Your task to perform on an android device: turn on location history Image 0: 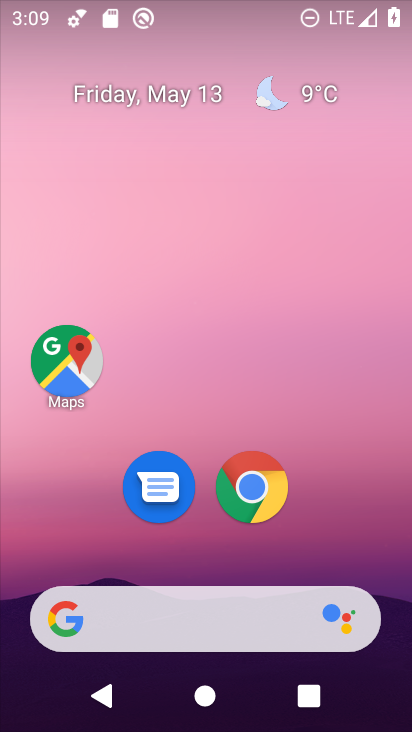
Step 0: drag from (199, 599) to (205, 104)
Your task to perform on an android device: turn on location history Image 1: 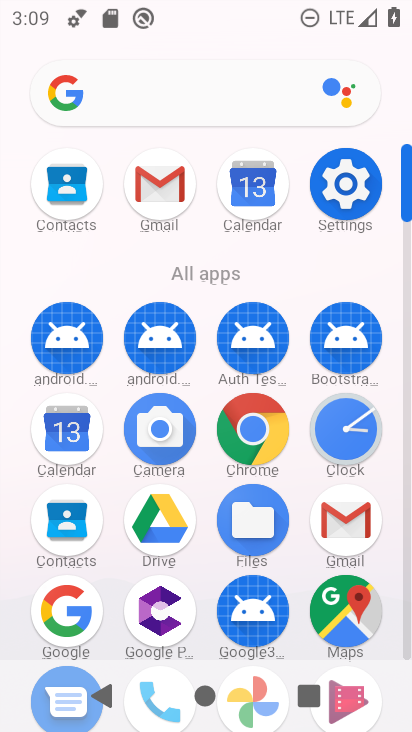
Step 1: click (361, 197)
Your task to perform on an android device: turn on location history Image 2: 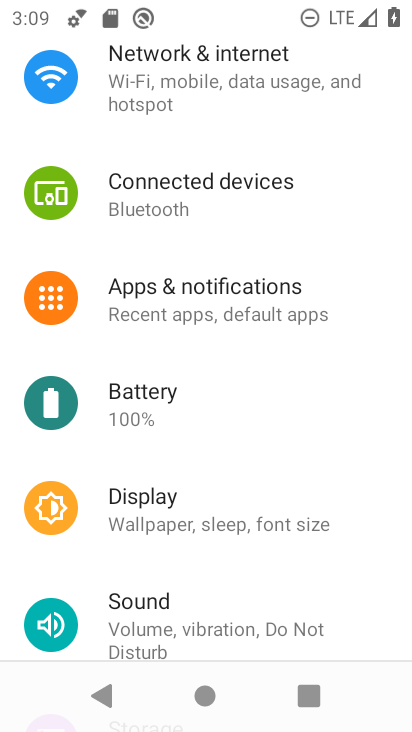
Step 2: drag from (209, 554) to (169, 94)
Your task to perform on an android device: turn on location history Image 3: 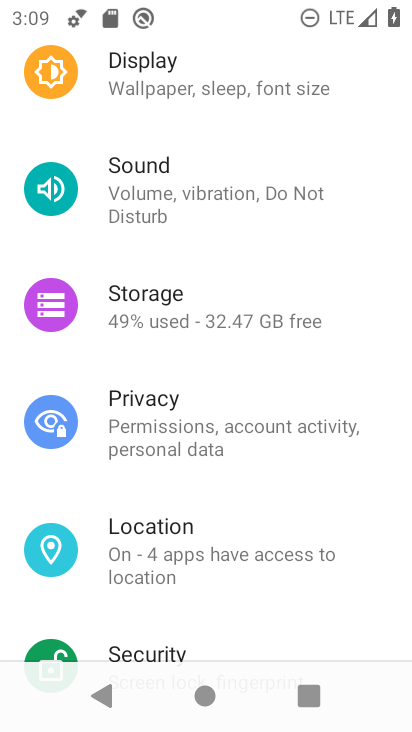
Step 3: click (198, 528)
Your task to perform on an android device: turn on location history Image 4: 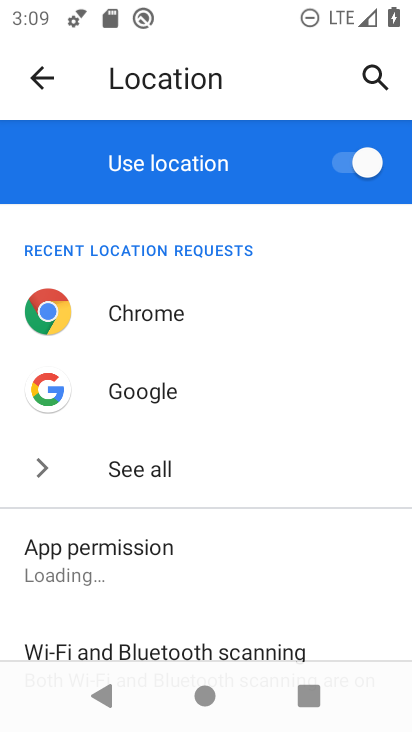
Step 4: drag from (204, 534) to (205, 55)
Your task to perform on an android device: turn on location history Image 5: 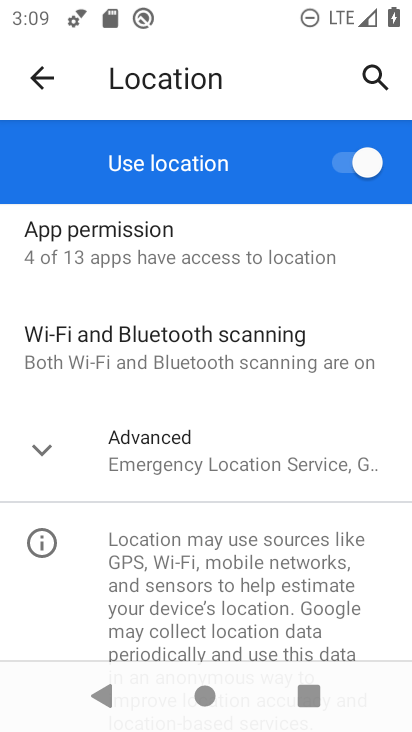
Step 5: click (176, 488)
Your task to perform on an android device: turn on location history Image 6: 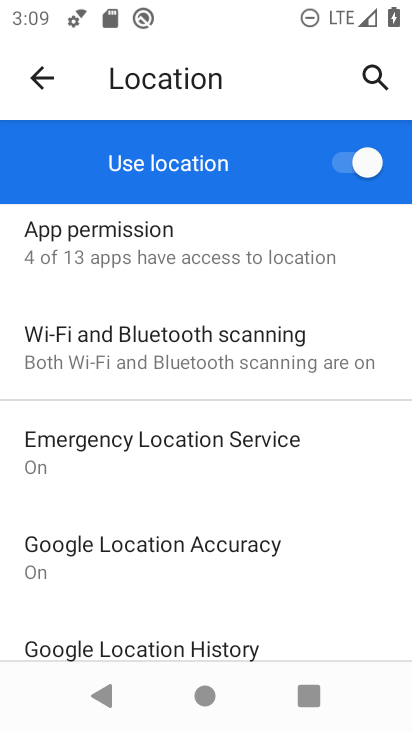
Step 6: click (159, 640)
Your task to perform on an android device: turn on location history Image 7: 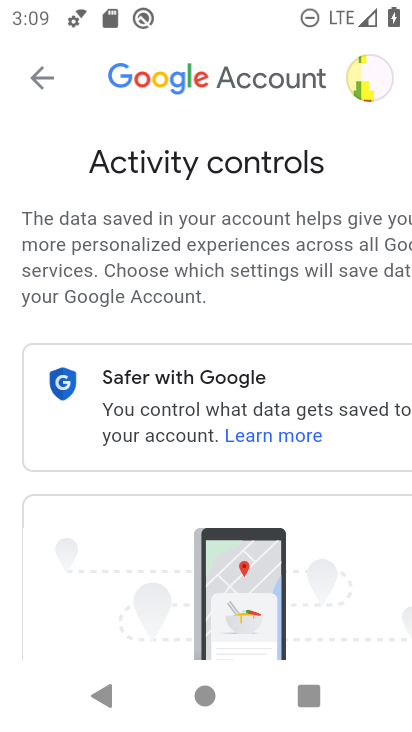
Step 7: task complete